Your task to perform on an android device: turn smart compose on in the gmail app Image 0: 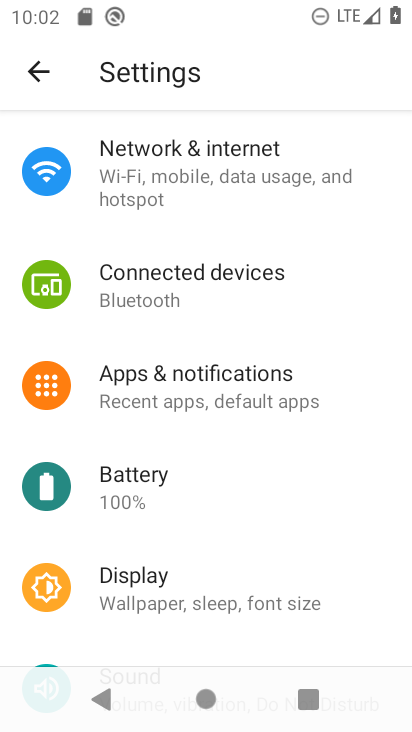
Step 0: press home button
Your task to perform on an android device: turn smart compose on in the gmail app Image 1: 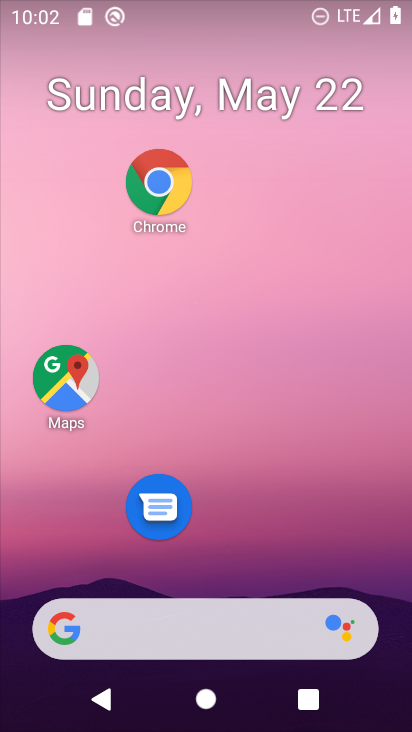
Step 1: drag from (266, 565) to (387, 9)
Your task to perform on an android device: turn smart compose on in the gmail app Image 2: 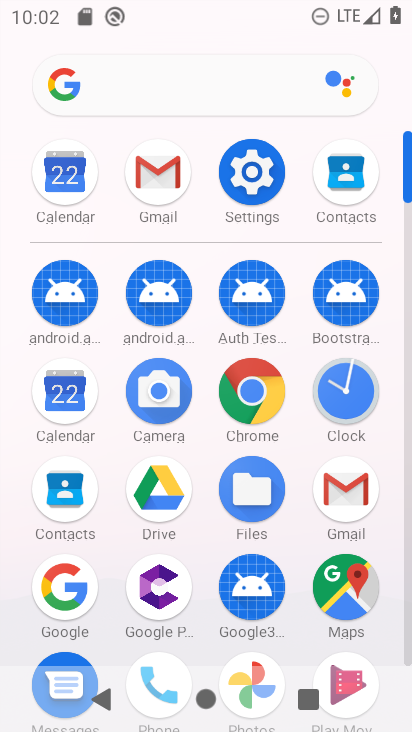
Step 2: click (342, 502)
Your task to perform on an android device: turn smart compose on in the gmail app Image 3: 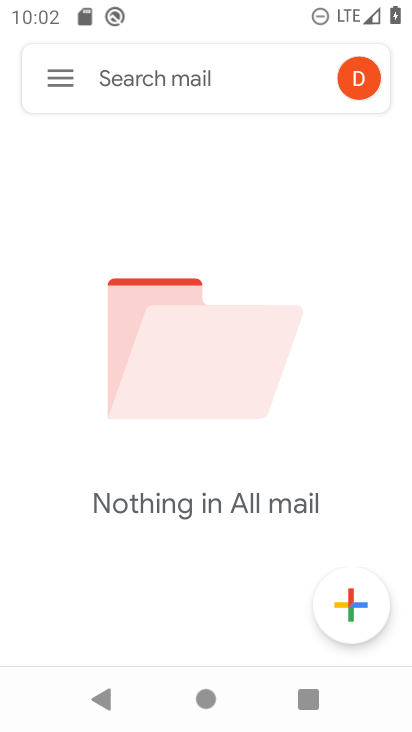
Step 3: click (57, 79)
Your task to perform on an android device: turn smart compose on in the gmail app Image 4: 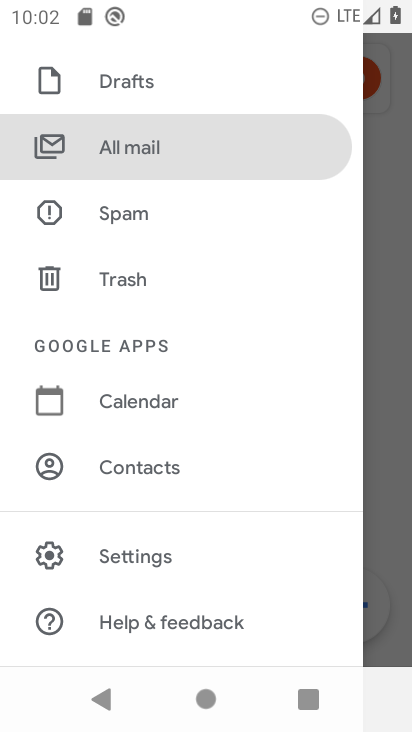
Step 4: drag from (260, 548) to (277, 160)
Your task to perform on an android device: turn smart compose on in the gmail app Image 5: 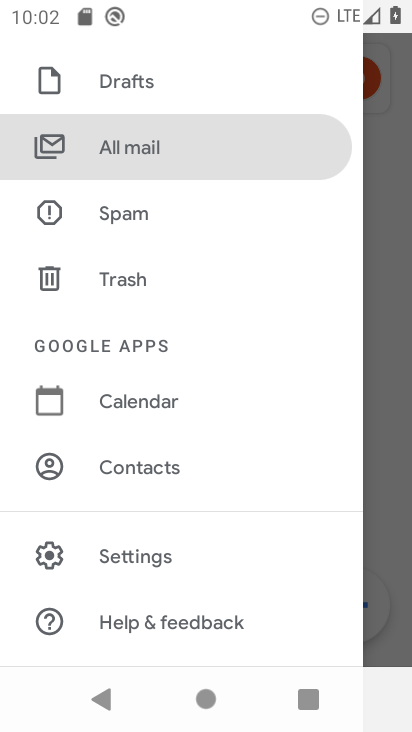
Step 5: click (180, 565)
Your task to perform on an android device: turn smart compose on in the gmail app Image 6: 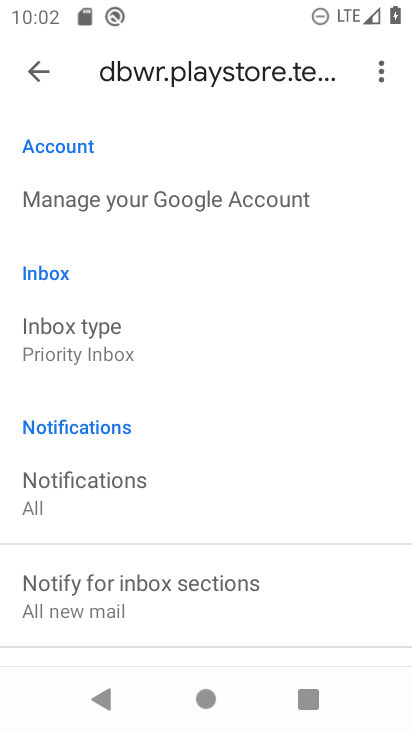
Step 6: task complete